Your task to perform on an android device: open a bookmark in the chrome app Image 0: 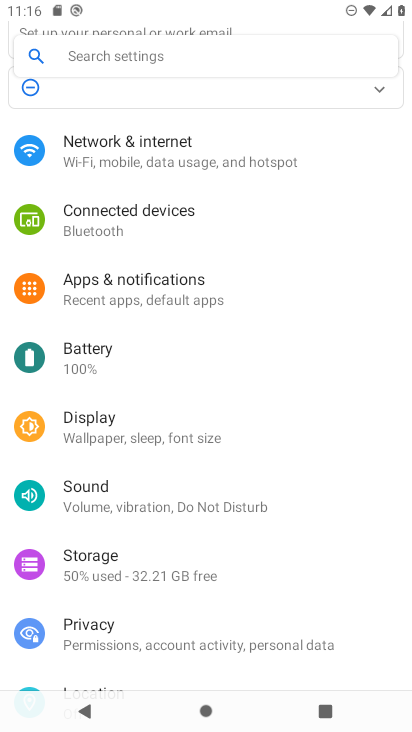
Step 0: press home button
Your task to perform on an android device: open a bookmark in the chrome app Image 1: 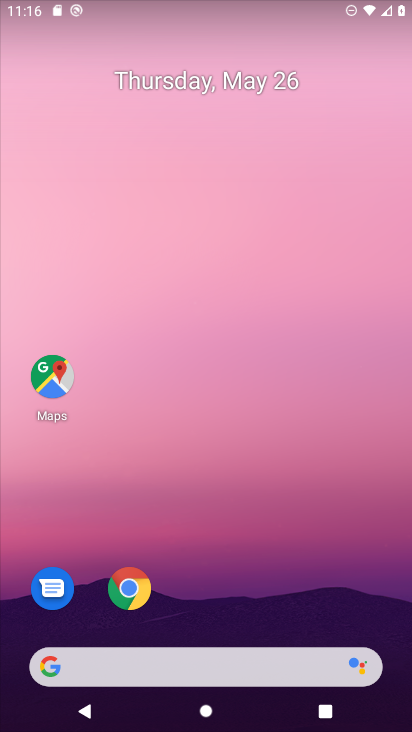
Step 1: click (131, 587)
Your task to perform on an android device: open a bookmark in the chrome app Image 2: 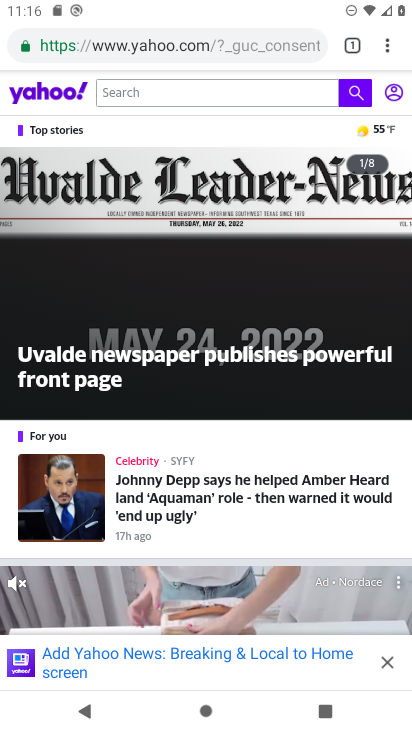
Step 2: click (387, 50)
Your task to perform on an android device: open a bookmark in the chrome app Image 3: 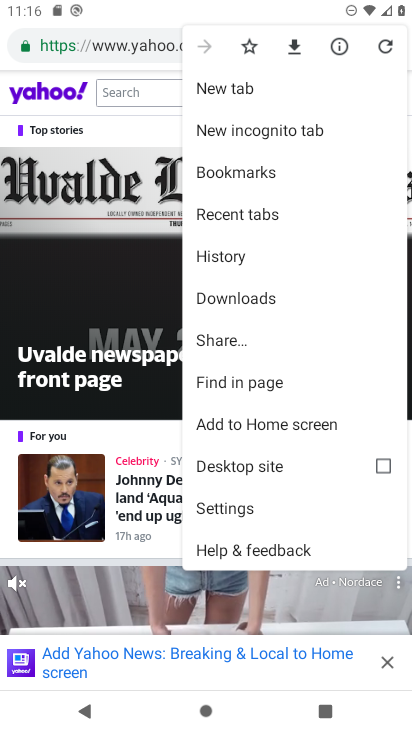
Step 3: click (255, 166)
Your task to perform on an android device: open a bookmark in the chrome app Image 4: 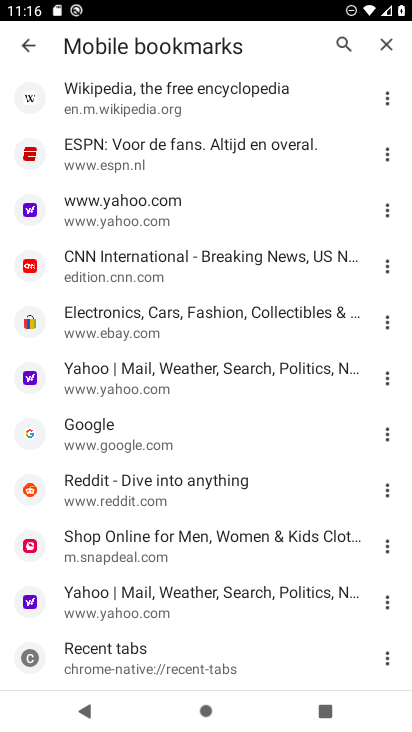
Step 4: task complete